Your task to perform on an android device: turn vacation reply on in the gmail app Image 0: 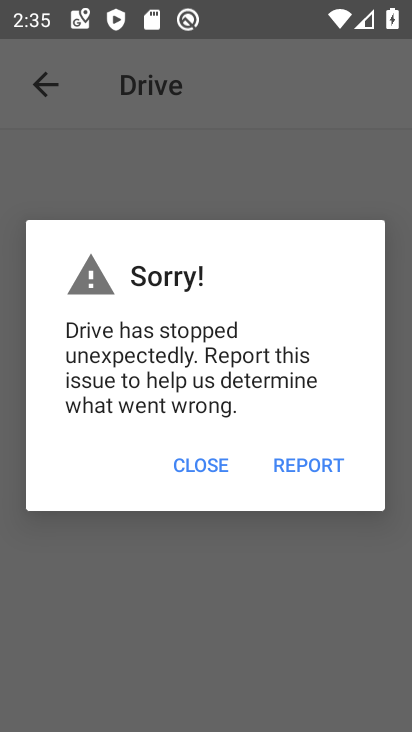
Step 0: press home button
Your task to perform on an android device: turn vacation reply on in the gmail app Image 1: 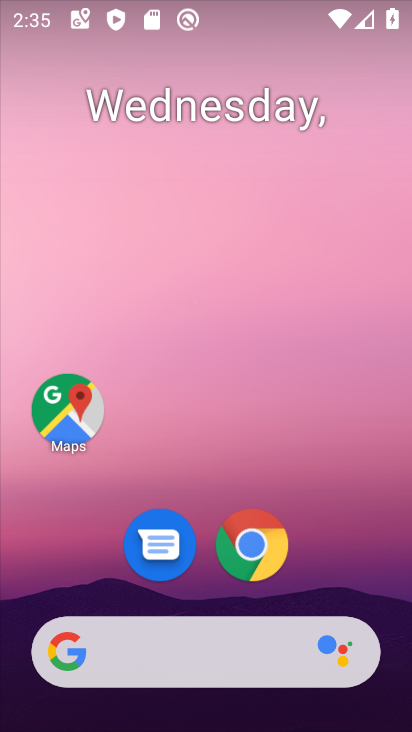
Step 1: drag from (211, 651) to (254, 48)
Your task to perform on an android device: turn vacation reply on in the gmail app Image 2: 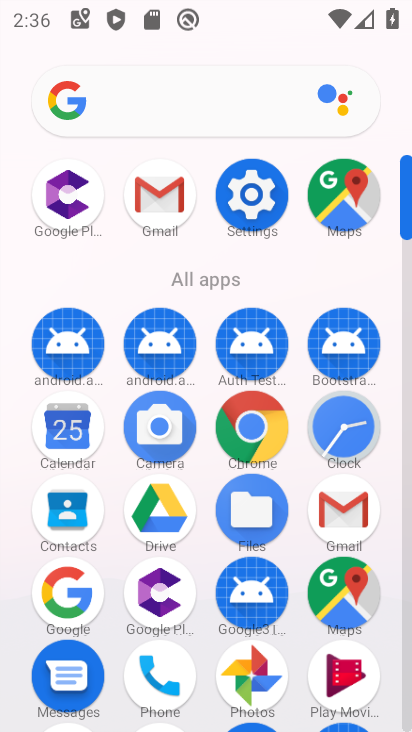
Step 2: click (161, 212)
Your task to perform on an android device: turn vacation reply on in the gmail app Image 3: 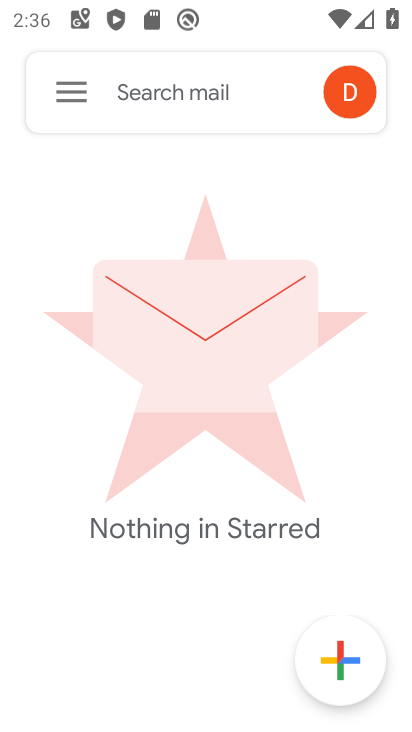
Step 3: click (69, 90)
Your task to perform on an android device: turn vacation reply on in the gmail app Image 4: 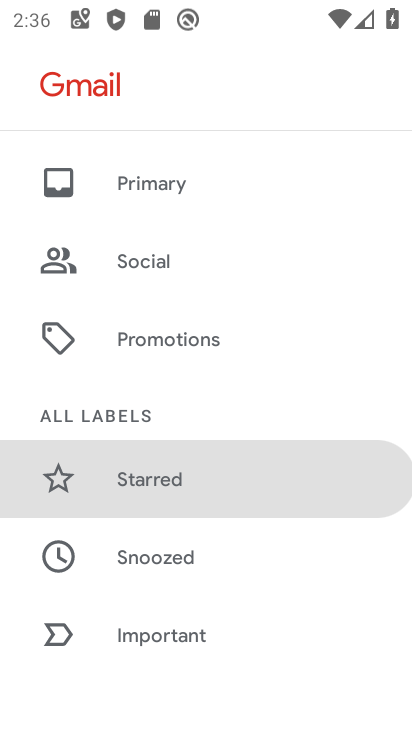
Step 4: drag from (236, 618) to (294, 142)
Your task to perform on an android device: turn vacation reply on in the gmail app Image 5: 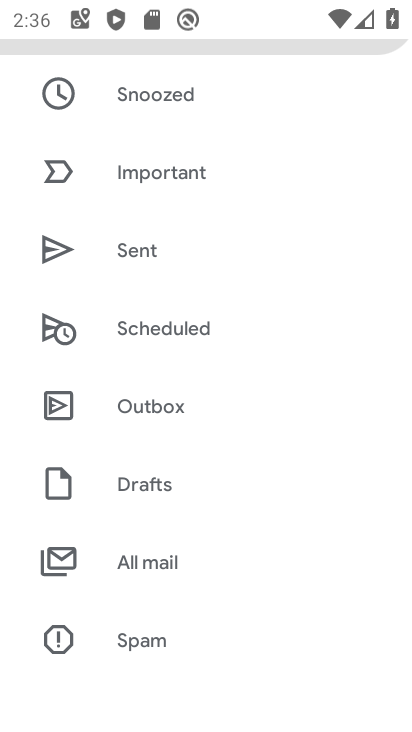
Step 5: drag from (247, 614) to (286, 119)
Your task to perform on an android device: turn vacation reply on in the gmail app Image 6: 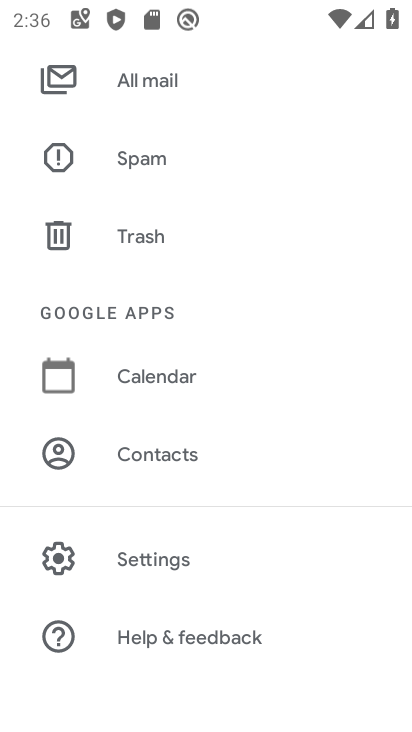
Step 6: click (170, 564)
Your task to perform on an android device: turn vacation reply on in the gmail app Image 7: 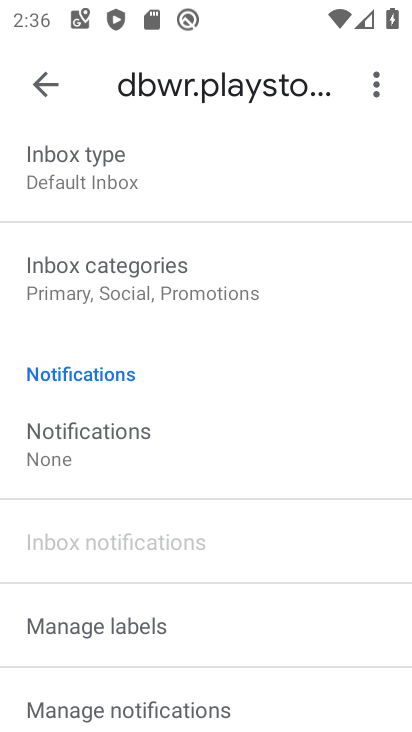
Step 7: drag from (215, 605) to (308, 233)
Your task to perform on an android device: turn vacation reply on in the gmail app Image 8: 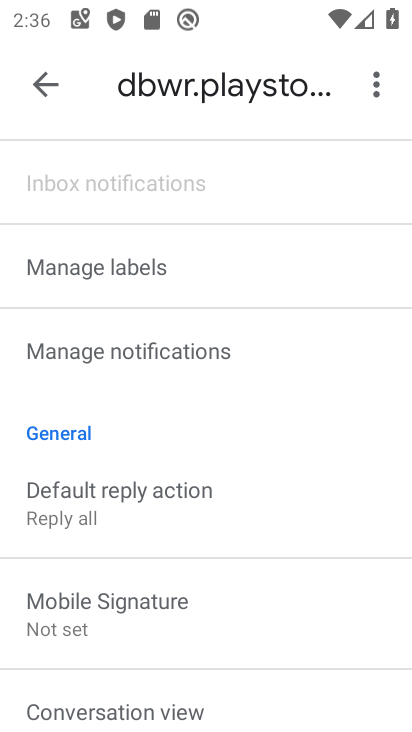
Step 8: drag from (226, 639) to (313, 149)
Your task to perform on an android device: turn vacation reply on in the gmail app Image 9: 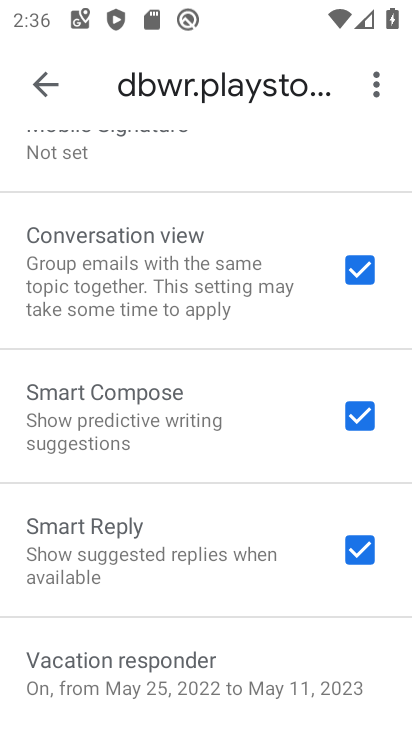
Step 9: click (144, 664)
Your task to perform on an android device: turn vacation reply on in the gmail app Image 10: 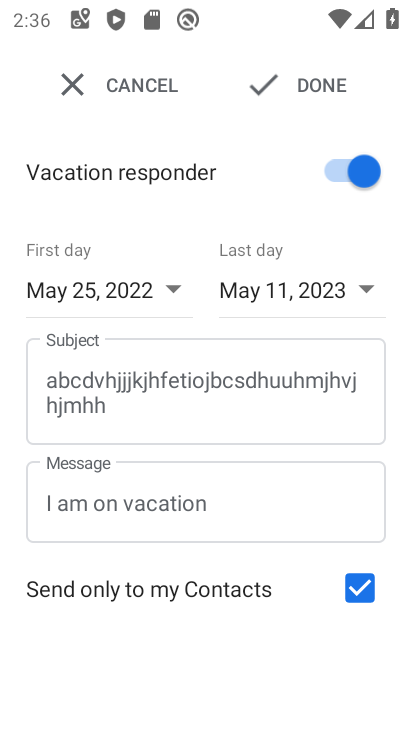
Step 10: task complete